Your task to perform on an android device: Open Android settings Image 0: 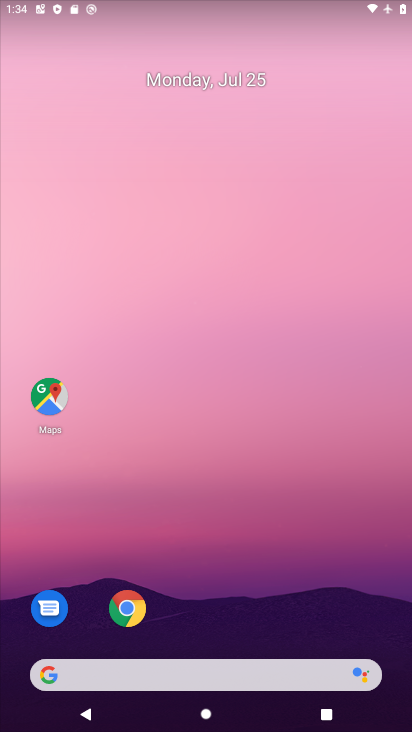
Step 0: drag from (211, 643) to (261, 191)
Your task to perform on an android device: Open Android settings Image 1: 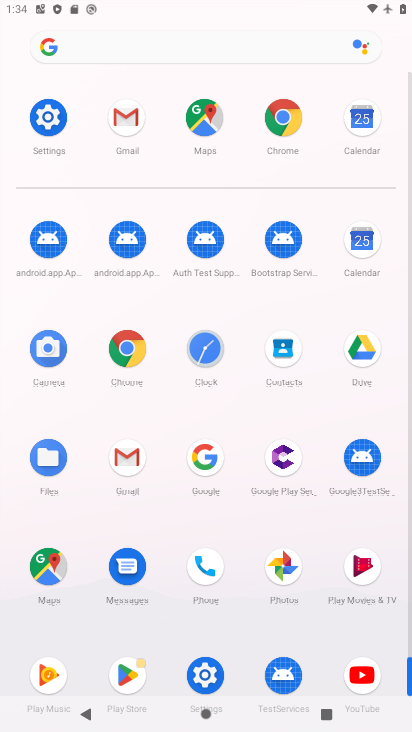
Step 1: click (47, 127)
Your task to perform on an android device: Open Android settings Image 2: 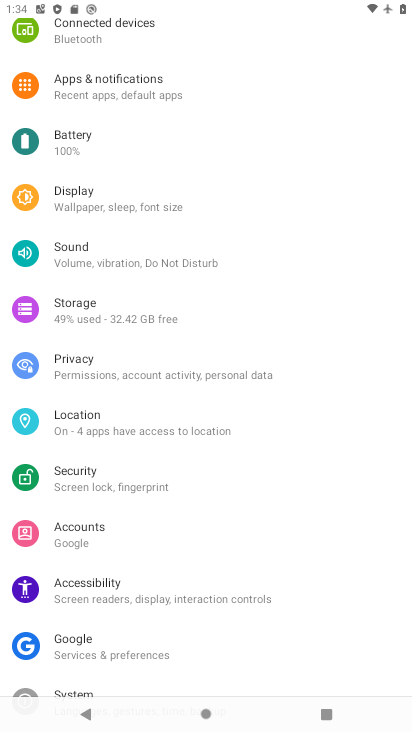
Step 2: drag from (132, 584) to (125, 168)
Your task to perform on an android device: Open Android settings Image 3: 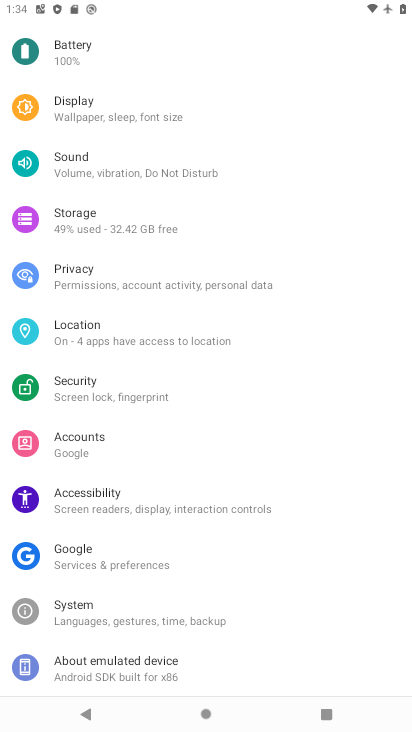
Step 3: click (129, 670)
Your task to perform on an android device: Open Android settings Image 4: 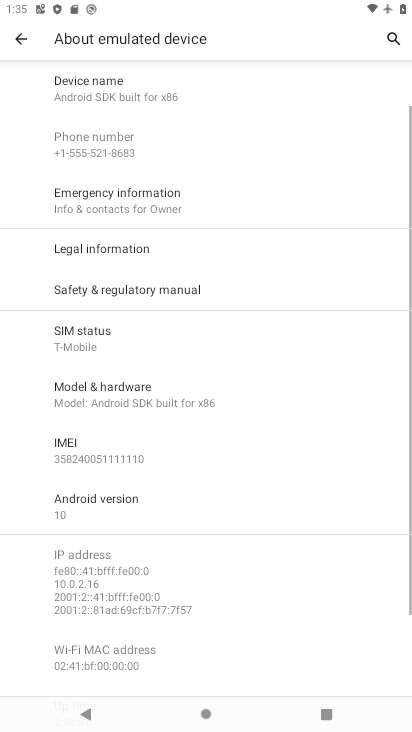
Step 4: click (129, 508)
Your task to perform on an android device: Open Android settings Image 5: 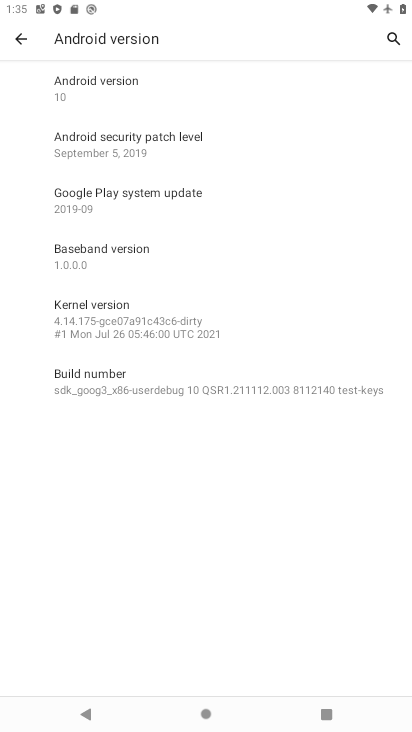
Step 5: task complete